Your task to perform on an android device: set default search engine in the chrome app Image 0: 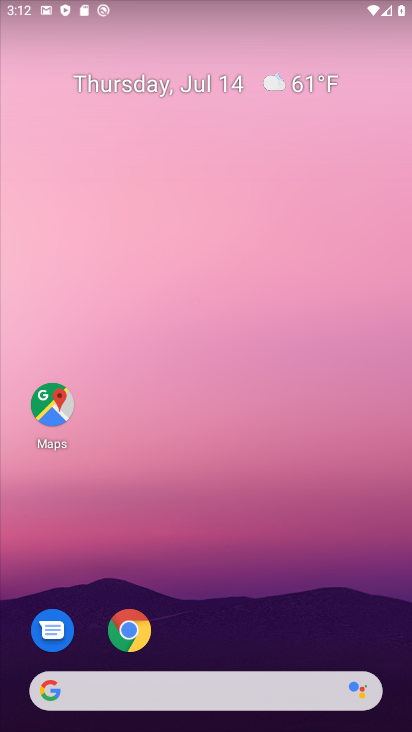
Step 0: drag from (217, 304) to (216, 249)
Your task to perform on an android device: set default search engine in the chrome app Image 1: 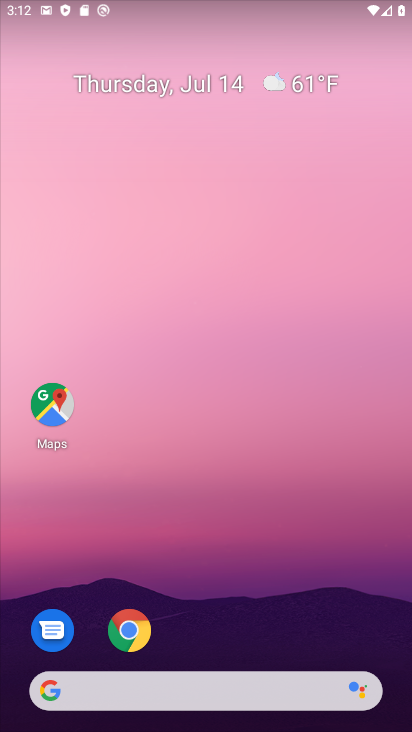
Step 1: drag from (248, 609) to (156, 15)
Your task to perform on an android device: set default search engine in the chrome app Image 2: 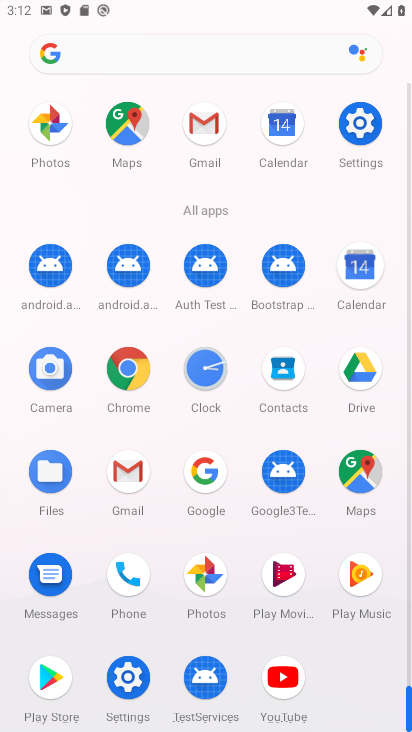
Step 2: drag from (251, 579) to (193, 65)
Your task to perform on an android device: set default search engine in the chrome app Image 3: 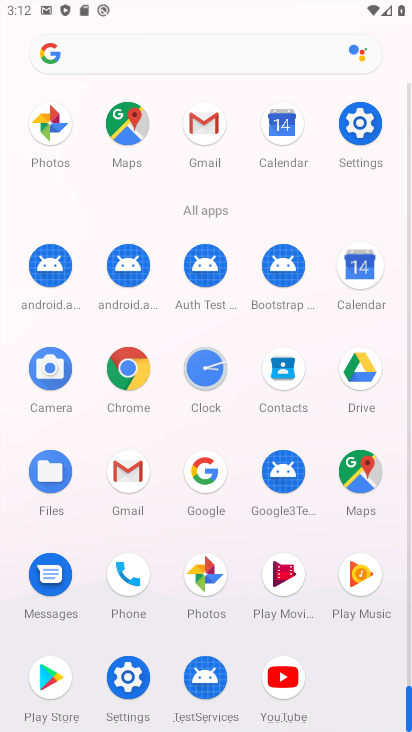
Step 3: click (125, 364)
Your task to perform on an android device: set default search engine in the chrome app Image 4: 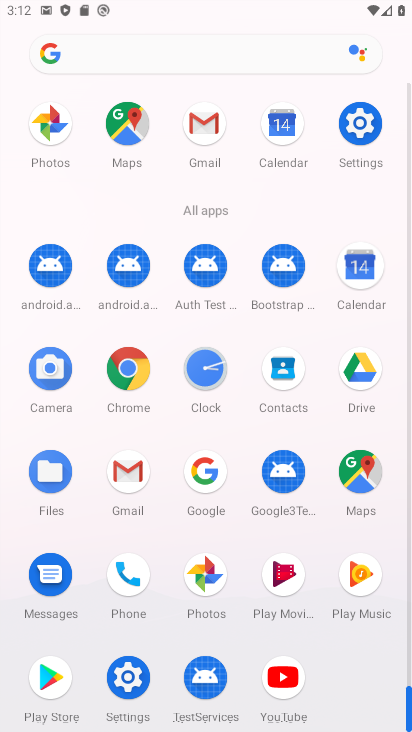
Step 4: click (128, 365)
Your task to perform on an android device: set default search engine in the chrome app Image 5: 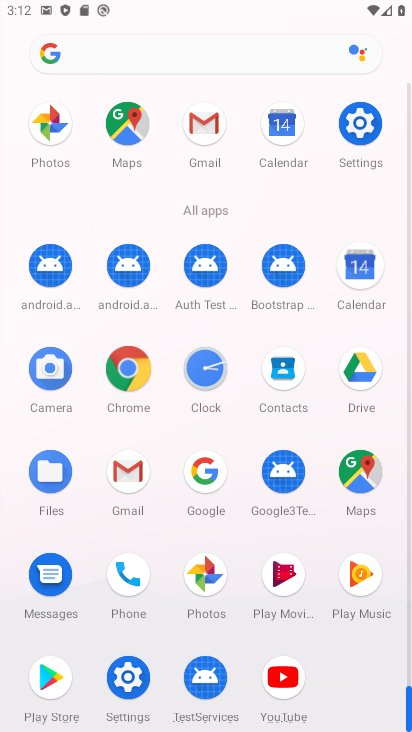
Step 5: click (128, 365)
Your task to perform on an android device: set default search engine in the chrome app Image 6: 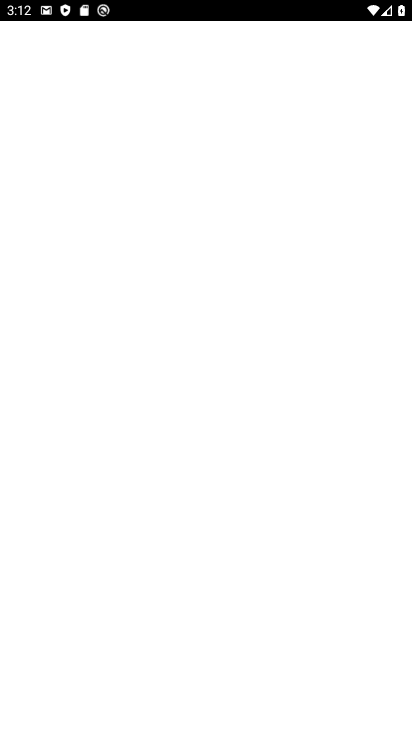
Step 6: click (130, 363)
Your task to perform on an android device: set default search engine in the chrome app Image 7: 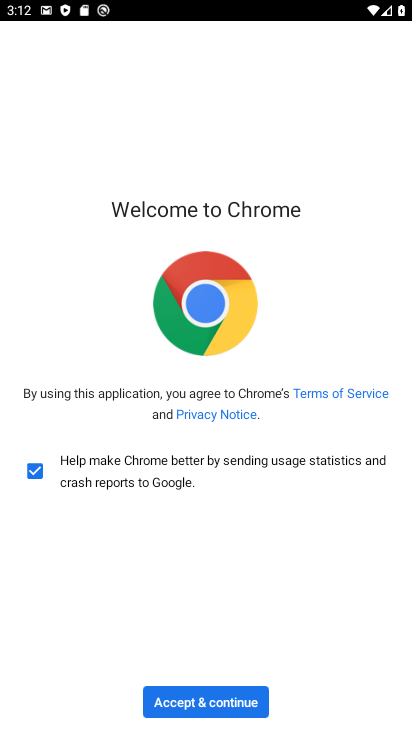
Step 7: click (131, 362)
Your task to perform on an android device: set default search engine in the chrome app Image 8: 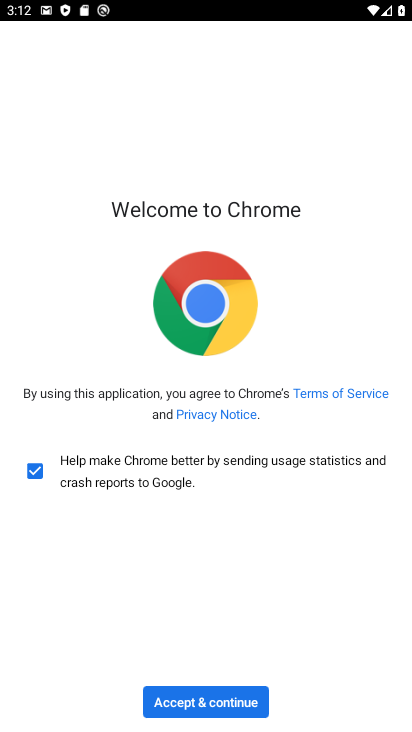
Step 8: click (193, 703)
Your task to perform on an android device: set default search engine in the chrome app Image 9: 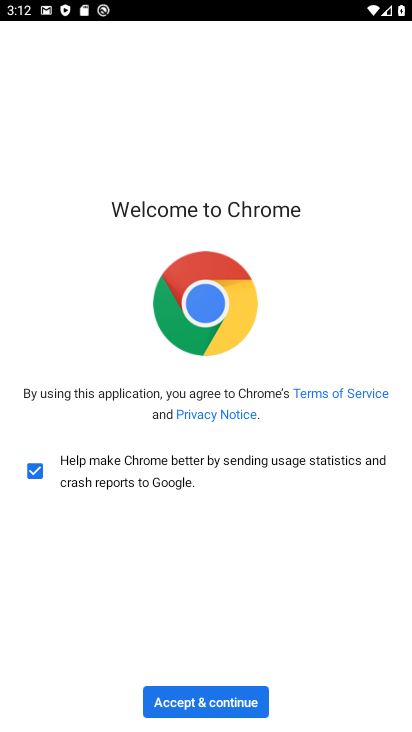
Step 9: click (194, 703)
Your task to perform on an android device: set default search engine in the chrome app Image 10: 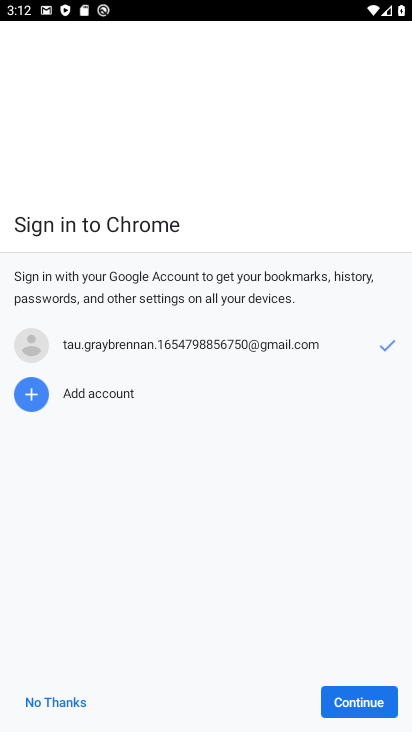
Step 10: click (196, 704)
Your task to perform on an android device: set default search engine in the chrome app Image 11: 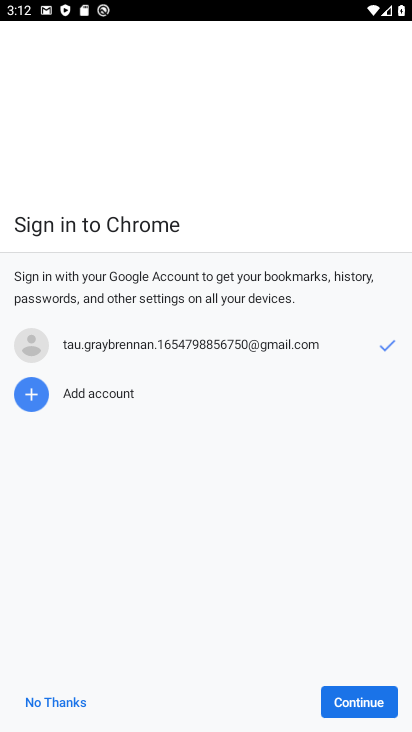
Step 11: click (355, 695)
Your task to perform on an android device: set default search engine in the chrome app Image 12: 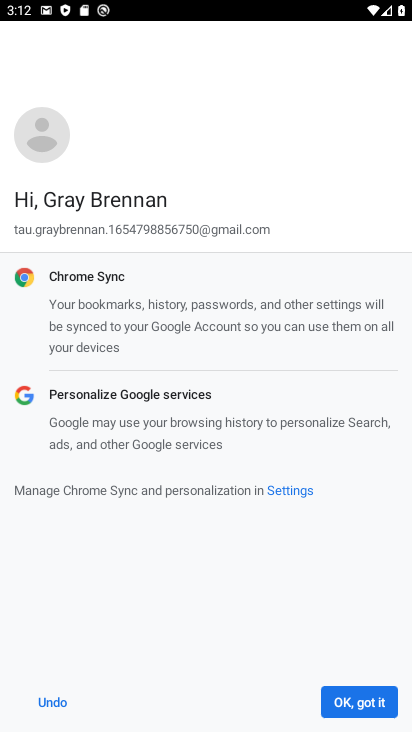
Step 12: click (358, 693)
Your task to perform on an android device: set default search engine in the chrome app Image 13: 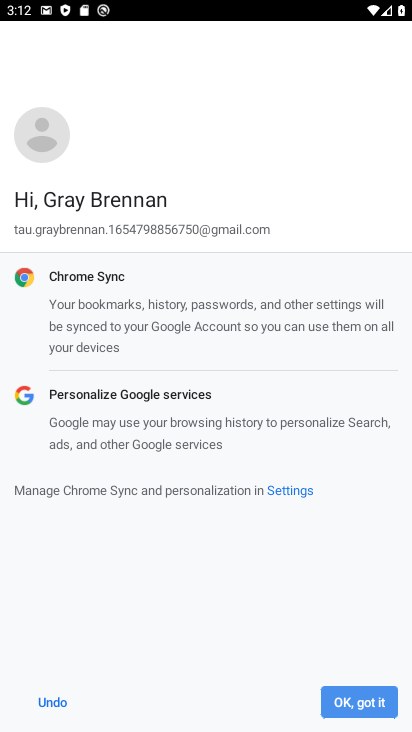
Step 13: click (359, 699)
Your task to perform on an android device: set default search engine in the chrome app Image 14: 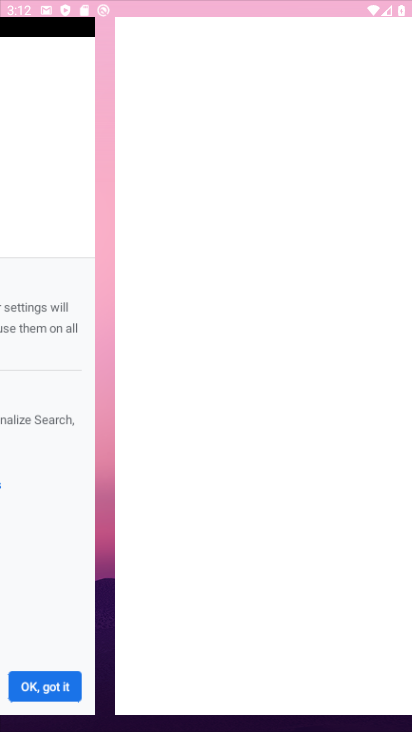
Step 14: click (370, 716)
Your task to perform on an android device: set default search engine in the chrome app Image 15: 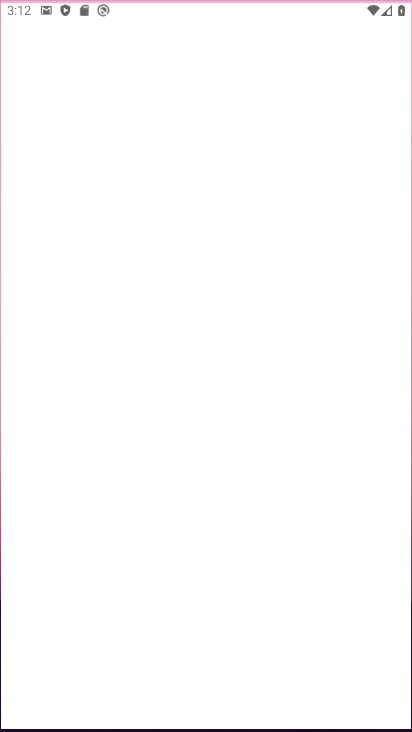
Step 15: click (370, 716)
Your task to perform on an android device: set default search engine in the chrome app Image 16: 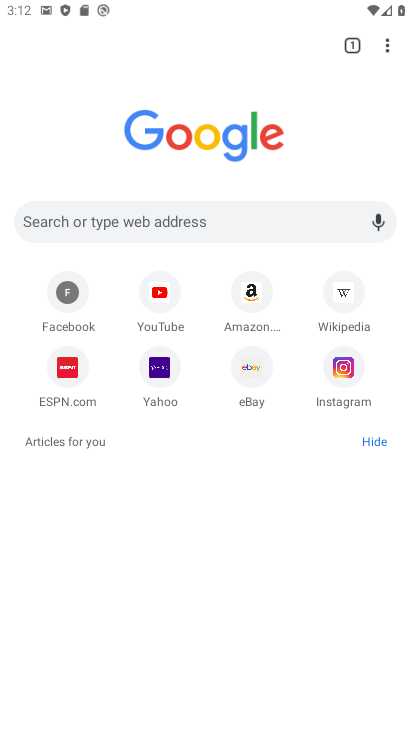
Step 16: drag from (383, 51) to (213, 380)
Your task to perform on an android device: set default search engine in the chrome app Image 17: 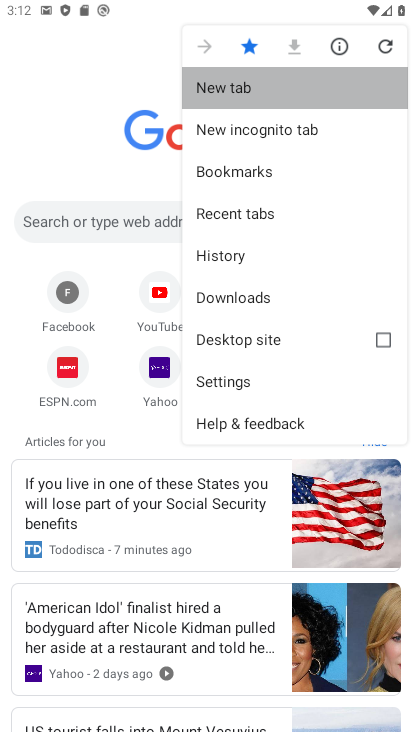
Step 17: click (226, 367)
Your task to perform on an android device: set default search engine in the chrome app Image 18: 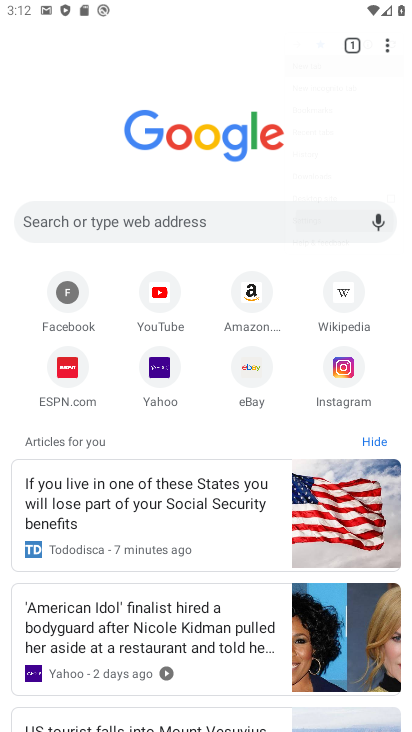
Step 18: click (226, 367)
Your task to perform on an android device: set default search engine in the chrome app Image 19: 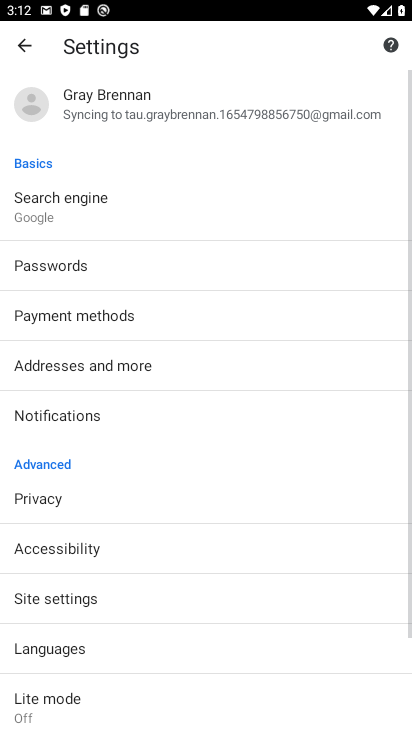
Step 19: click (41, 190)
Your task to perform on an android device: set default search engine in the chrome app Image 20: 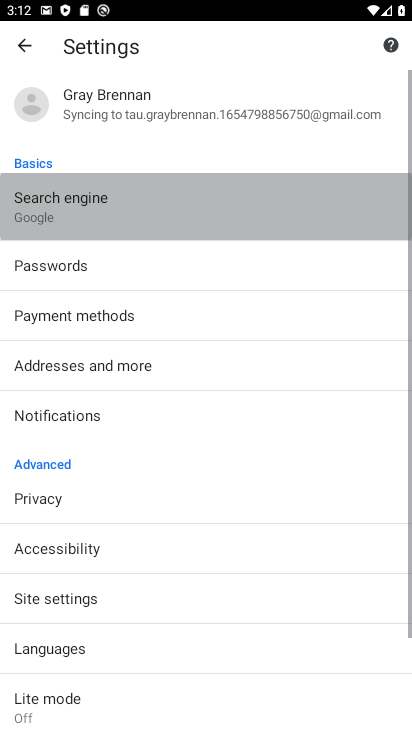
Step 20: click (42, 190)
Your task to perform on an android device: set default search engine in the chrome app Image 21: 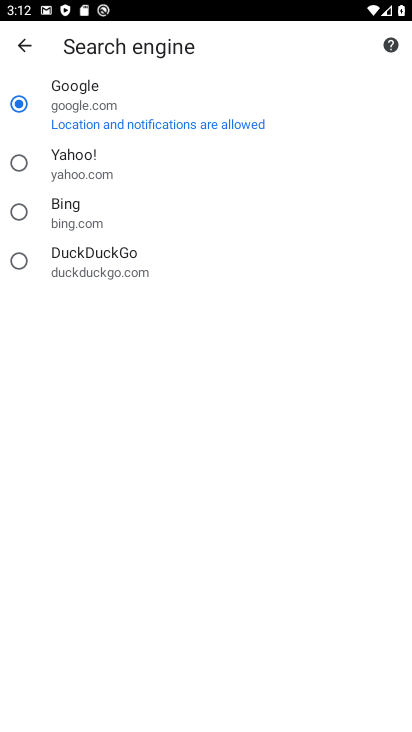
Step 21: click (42, 190)
Your task to perform on an android device: set default search engine in the chrome app Image 22: 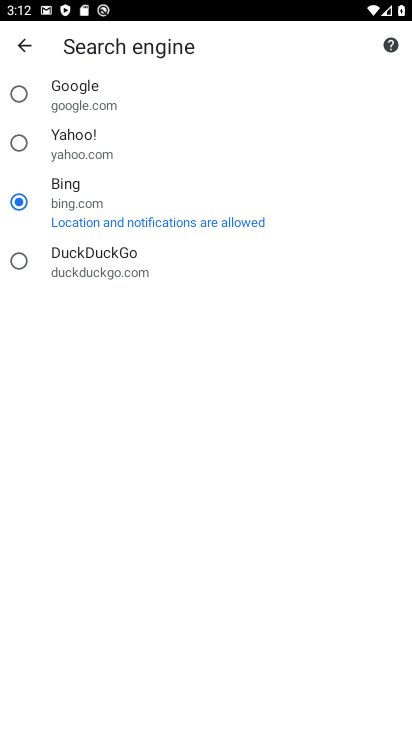
Step 22: click (7, 83)
Your task to perform on an android device: set default search engine in the chrome app Image 23: 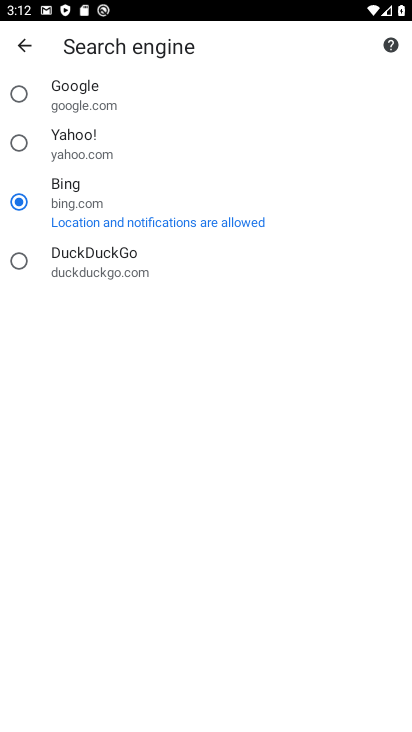
Step 23: click (13, 90)
Your task to perform on an android device: set default search engine in the chrome app Image 24: 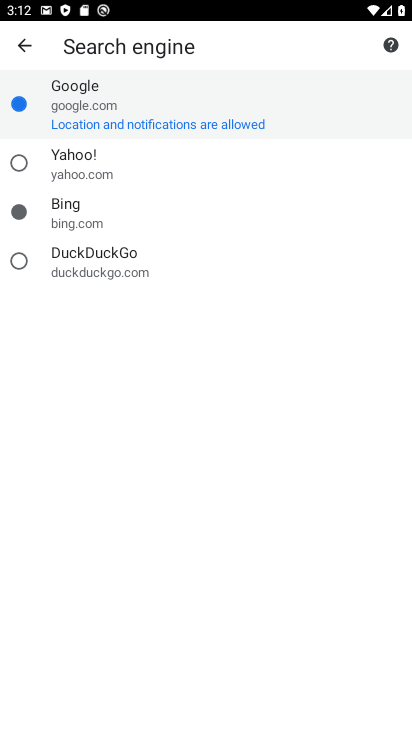
Step 24: click (13, 90)
Your task to perform on an android device: set default search engine in the chrome app Image 25: 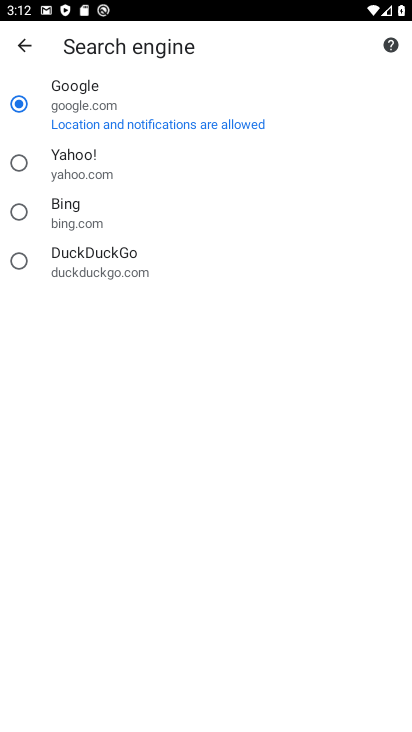
Step 25: task complete